Your task to perform on an android device: turn off wifi Image 0: 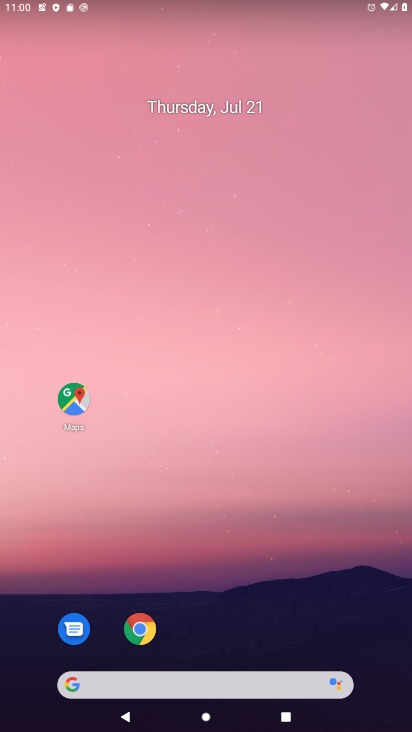
Step 0: drag from (307, 133) to (268, 570)
Your task to perform on an android device: turn off wifi Image 1: 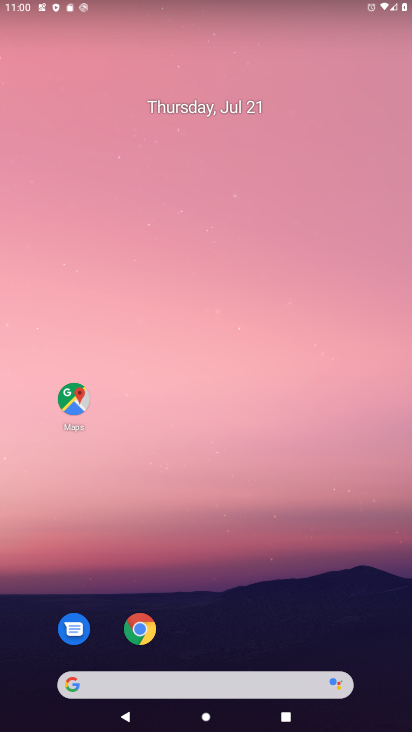
Step 1: drag from (380, 2) to (280, 555)
Your task to perform on an android device: turn off wifi Image 2: 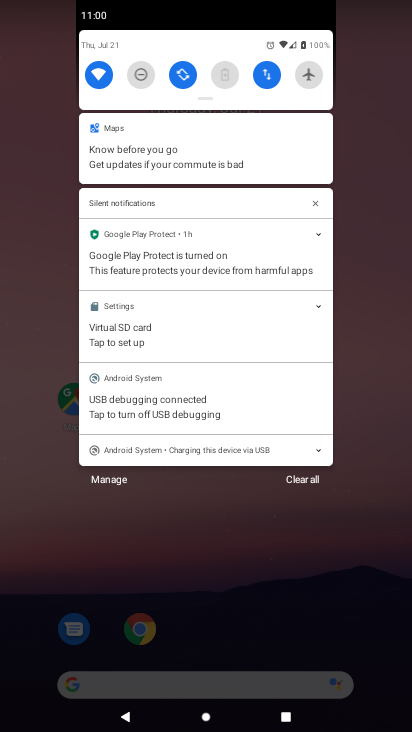
Step 2: click (87, 79)
Your task to perform on an android device: turn off wifi Image 3: 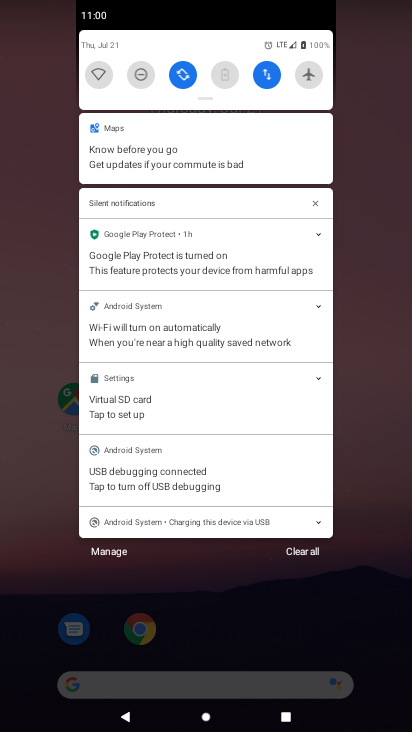
Step 3: task complete